Your task to perform on an android device: Is it going to rain this weekend? Image 0: 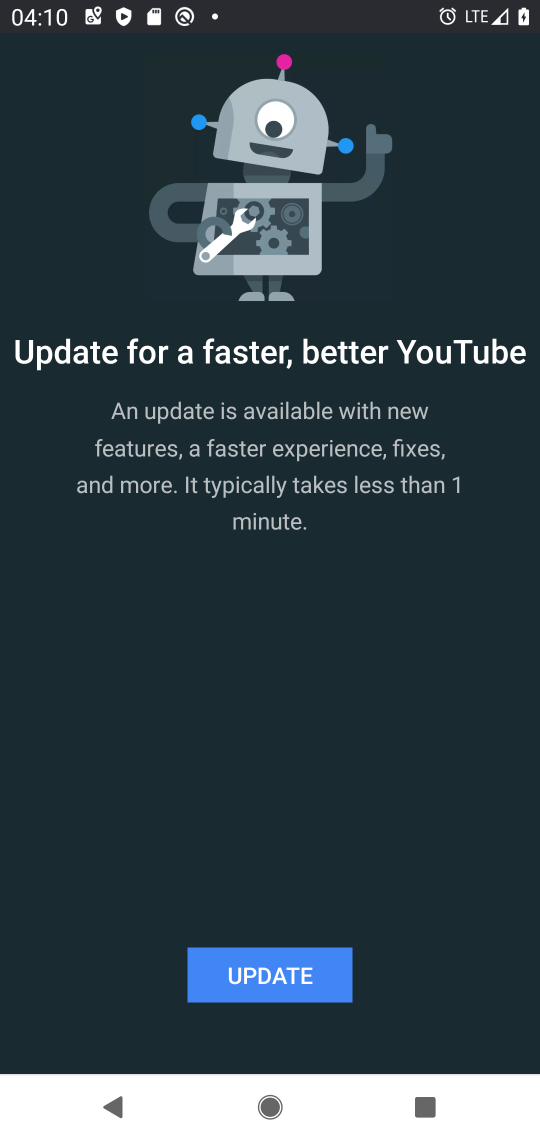
Step 0: press back button
Your task to perform on an android device: Is it going to rain this weekend? Image 1: 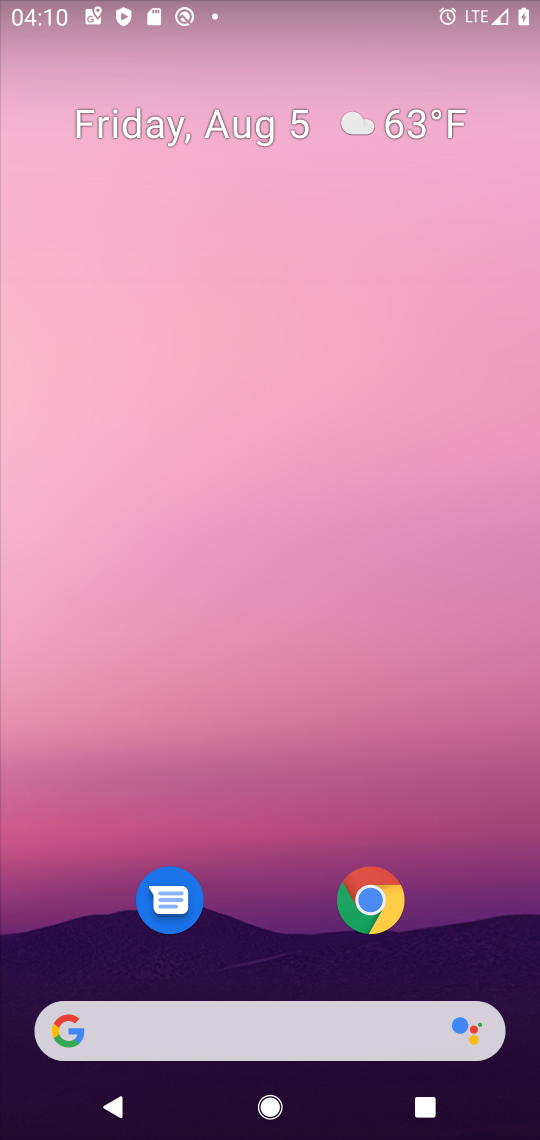
Step 1: drag from (269, 966) to (315, 56)
Your task to perform on an android device: Is it going to rain this weekend? Image 2: 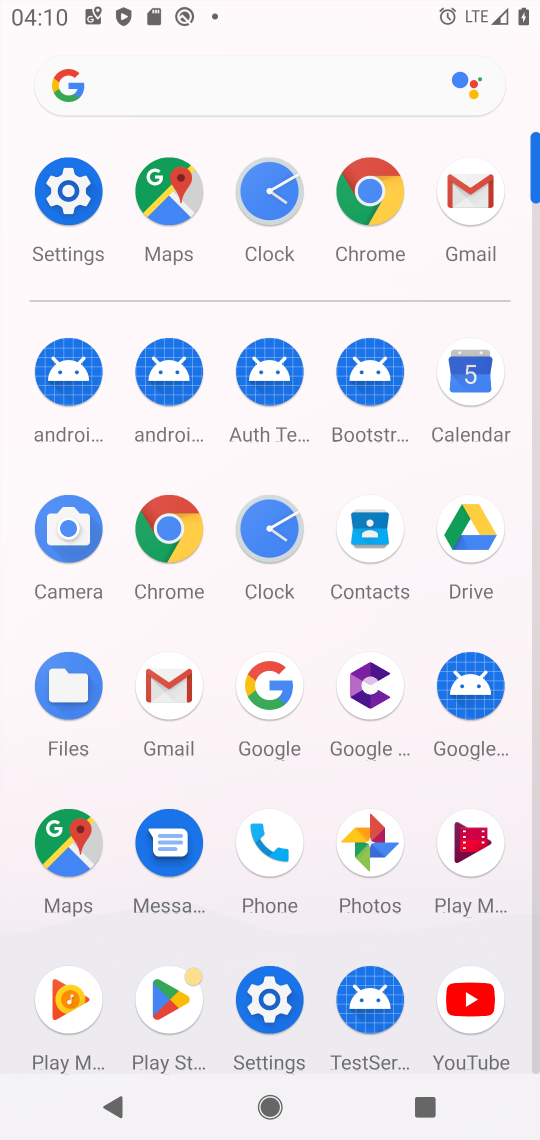
Step 2: click (188, 91)
Your task to perform on an android device: Is it going to rain this weekend? Image 3: 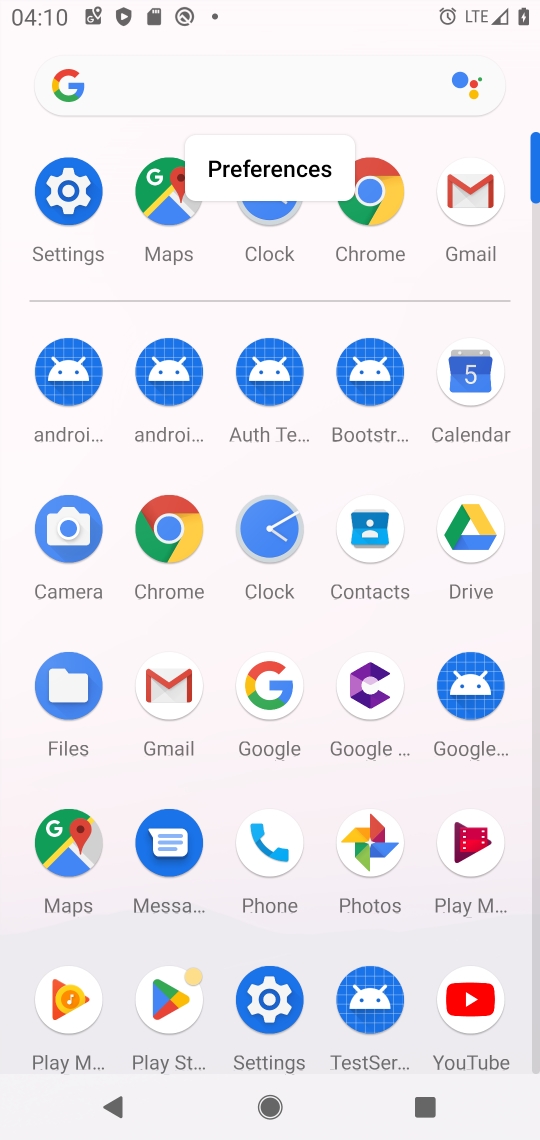
Step 3: type "weather"
Your task to perform on an android device: Is it going to rain this weekend? Image 4: 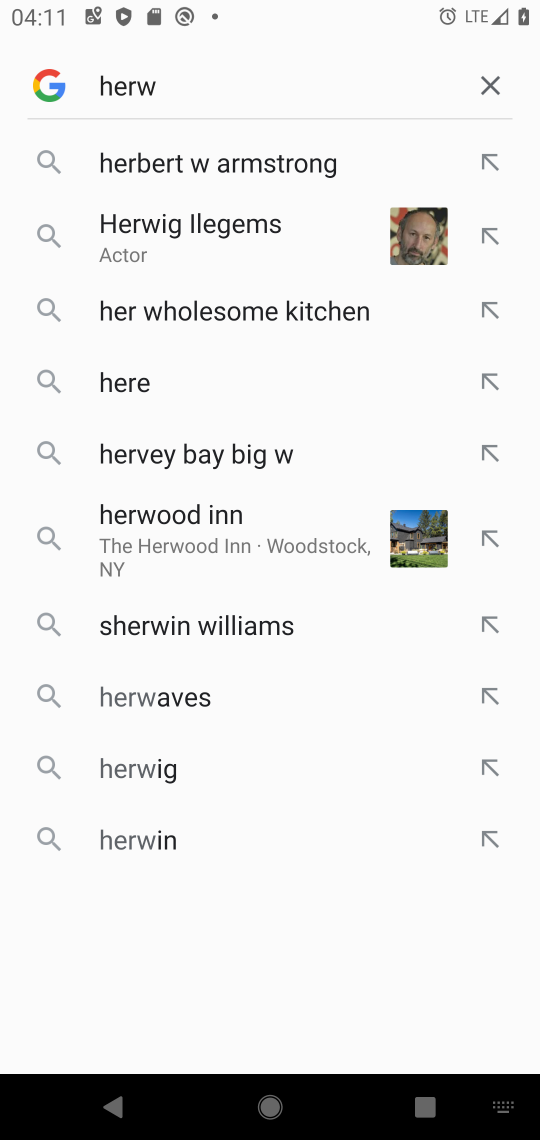
Step 4: click (495, 75)
Your task to perform on an android device: Is it going to rain this weekend? Image 5: 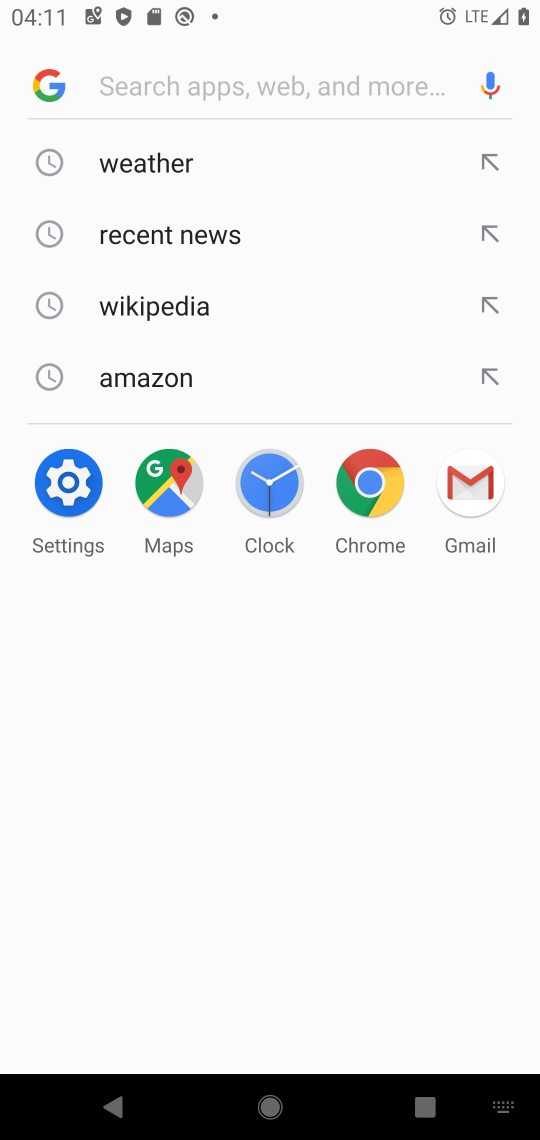
Step 5: click (204, 158)
Your task to perform on an android device: Is it going to rain this weekend? Image 6: 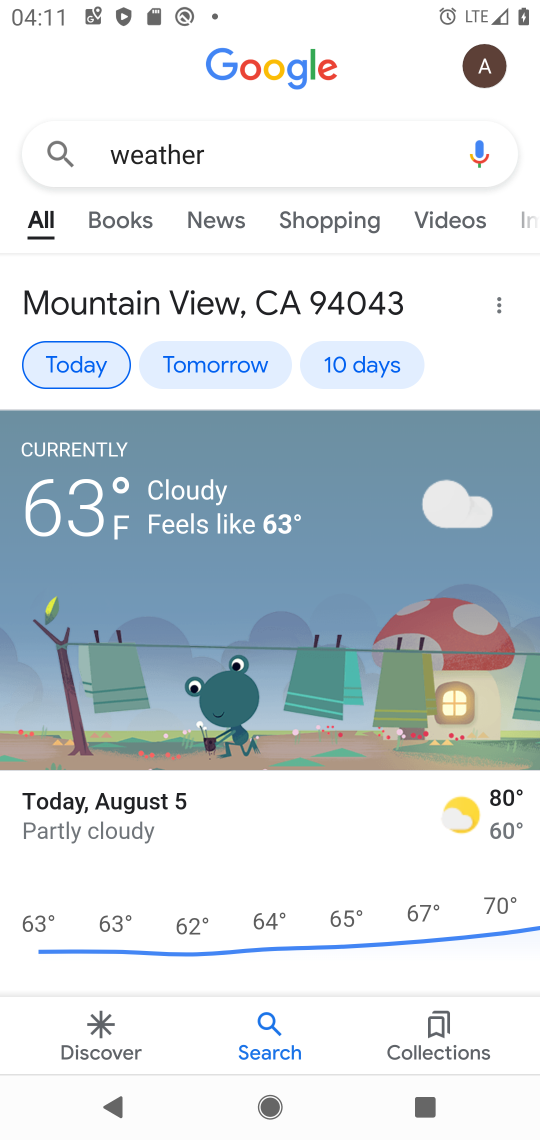
Step 6: click (369, 350)
Your task to perform on an android device: Is it going to rain this weekend? Image 7: 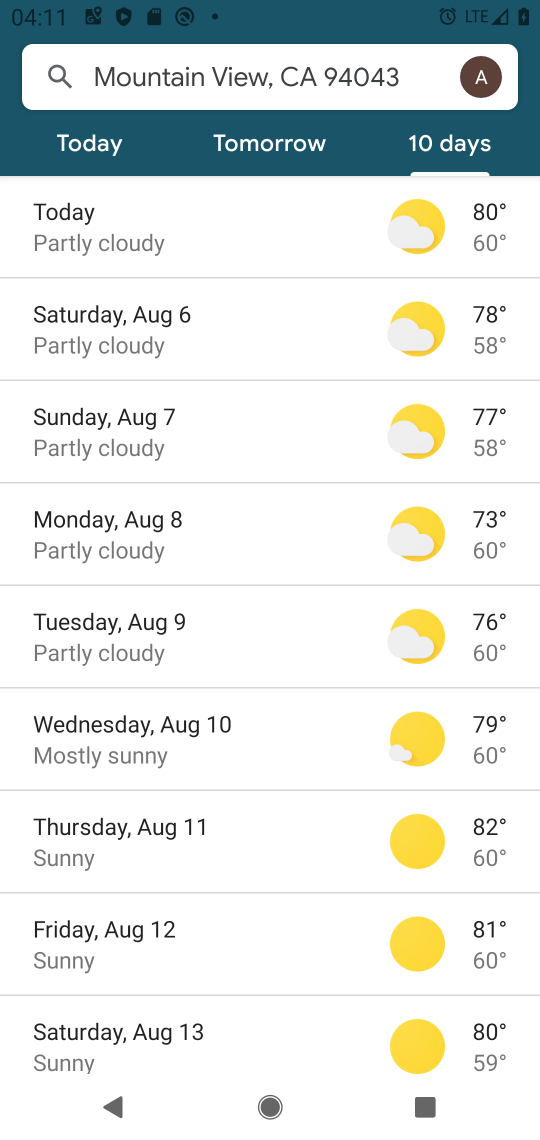
Step 7: task complete